Your task to perform on an android device: turn on sleep mode Image 0: 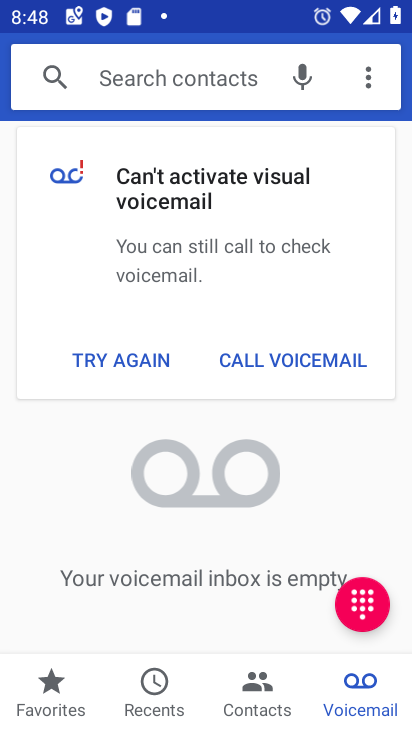
Step 0: press home button
Your task to perform on an android device: turn on sleep mode Image 1: 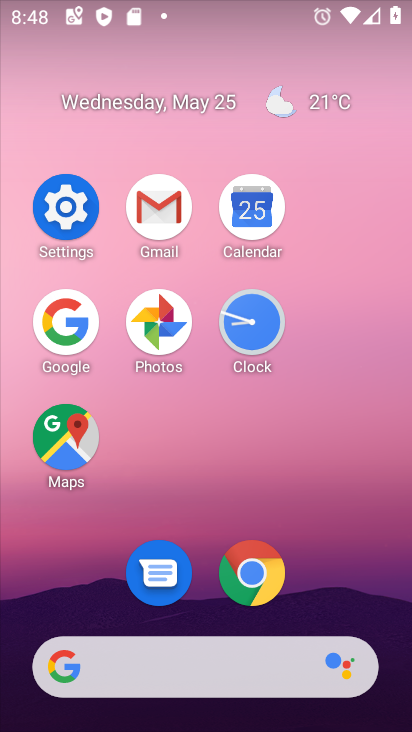
Step 1: click (86, 193)
Your task to perform on an android device: turn on sleep mode Image 2: 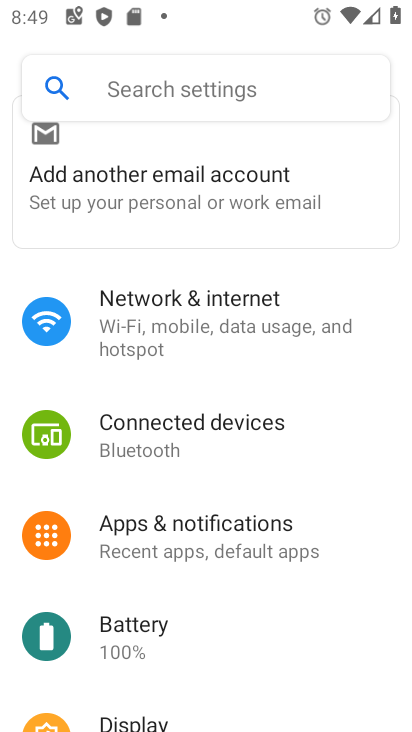
Step 2: drag from (192, 714) to (124, 380)
Your task to perform on an android device: turn on sleep mode Image 3: 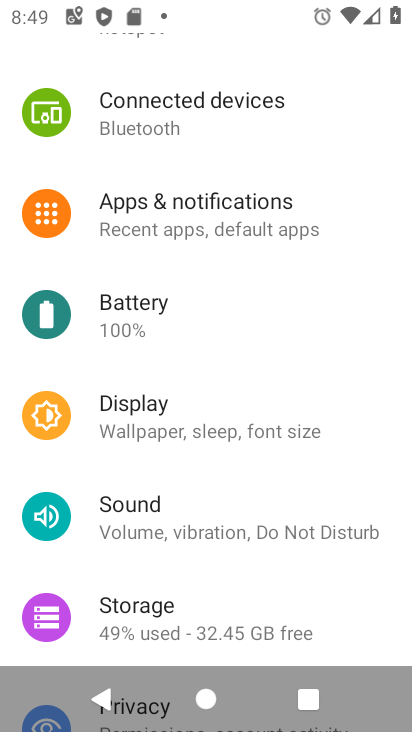
Step 3: click (172, 439)
Your task to perform on an android device: turn on sleep mode Image 4: 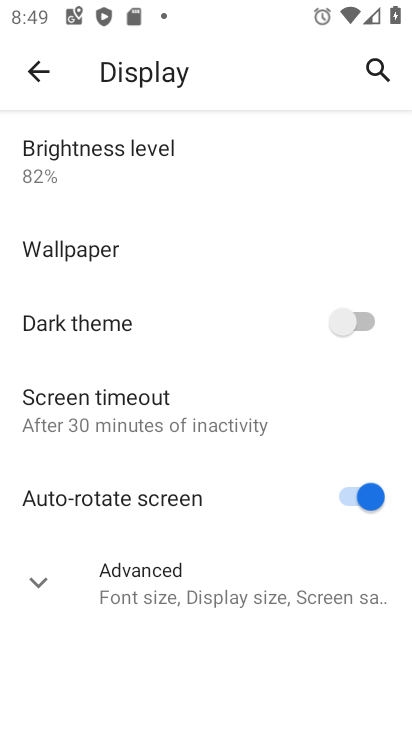
Step 4: click (172, 439)
Your task to perform on an android device: turn on sleep mode Image 5: 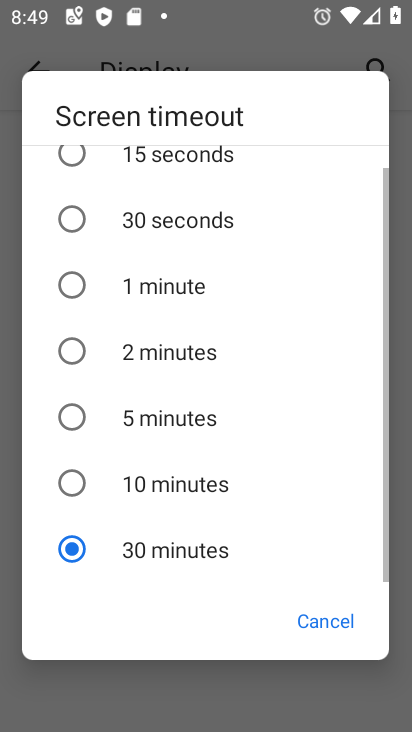
Step 5: task complete